Your task to perform on an android device: Open the Play Movies app and select the watchlist tab. Image 0: 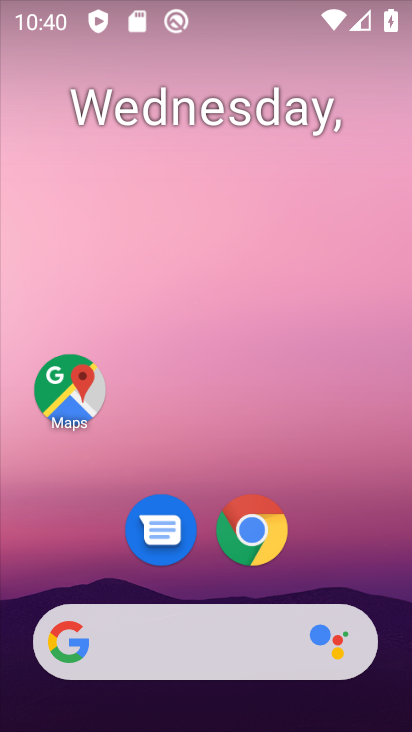
Step 0: drag from (344, 554) to (344, 40)
Your task to perform on an android device: Open the Play Movies app and select the watchlist tab. Image 1: 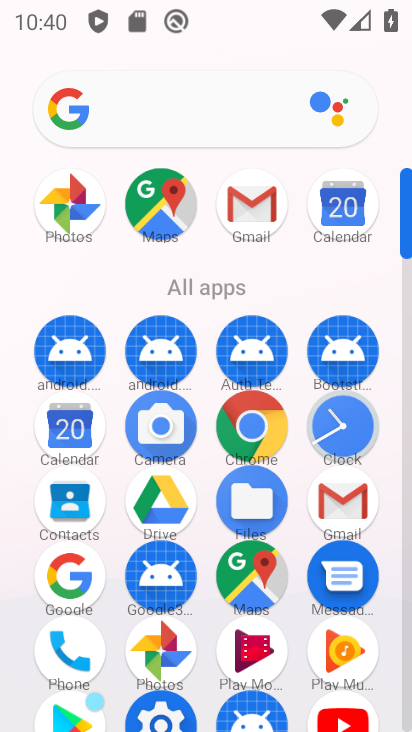
Step 1: click (246, 663)
Your task to perform on an android device: Open the Play Movies app and select the watchlist tab. Image 2: 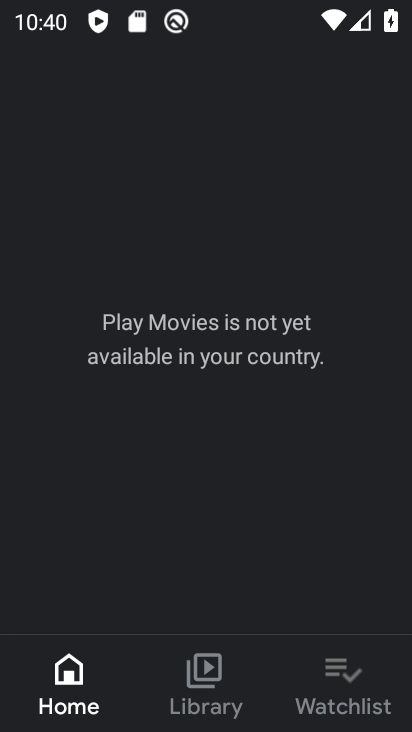
Step 2: click (377, 695)
Your task to perform on an android device: Open the Play Movies app and select the watchlist tab. Image 3: 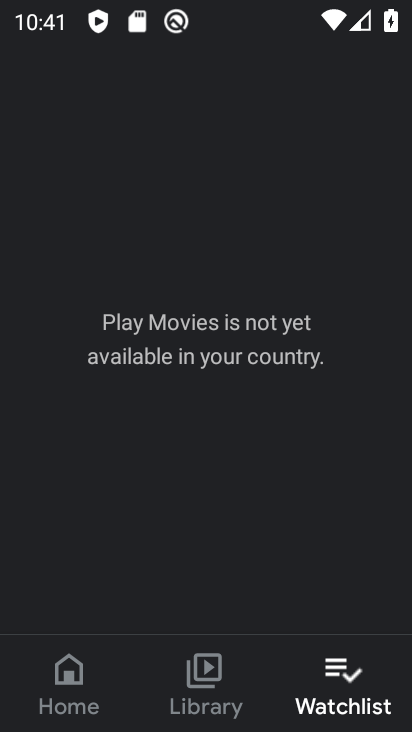
Step 3: task complete